Your task to perform on an android device: Is it going to rain today? Image 0: 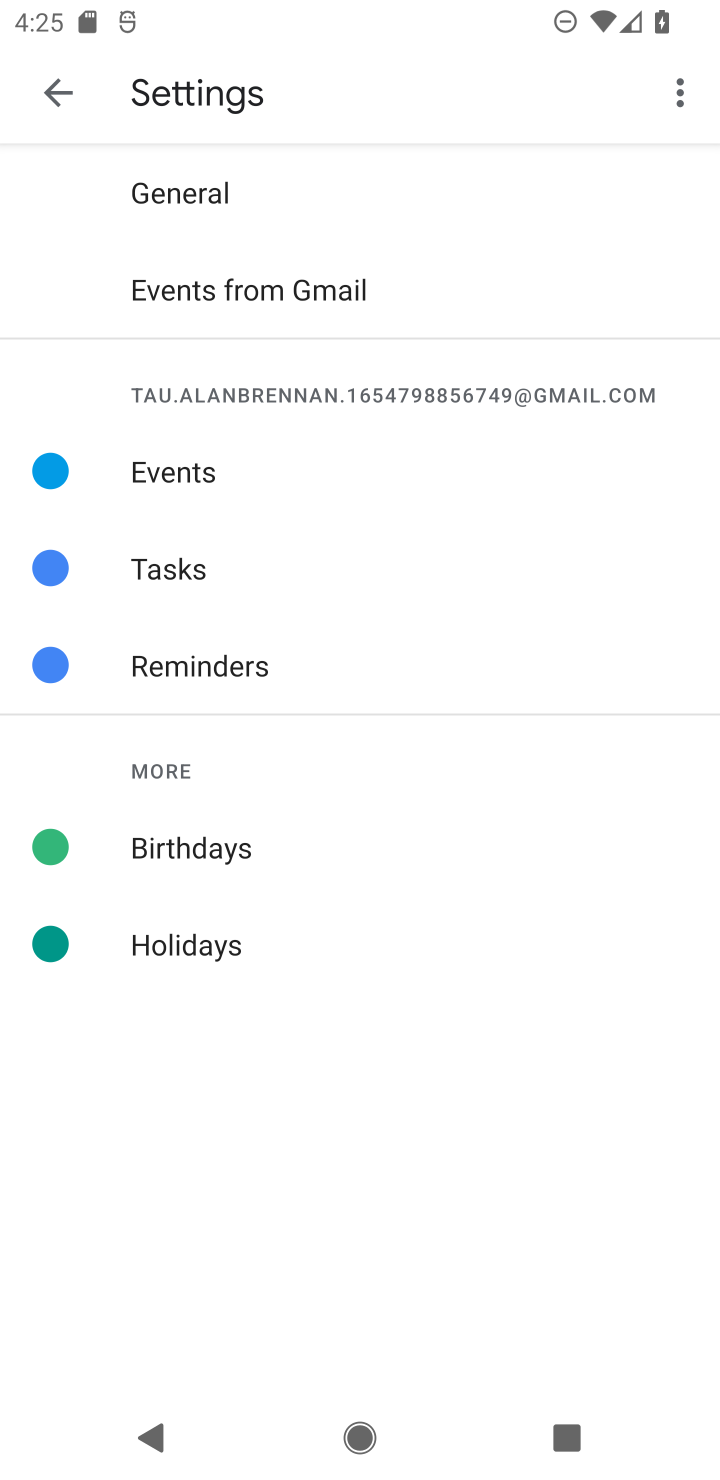
Step 0: press home button
Your task to perform on an android device: Is it going to rain today? Image 1: 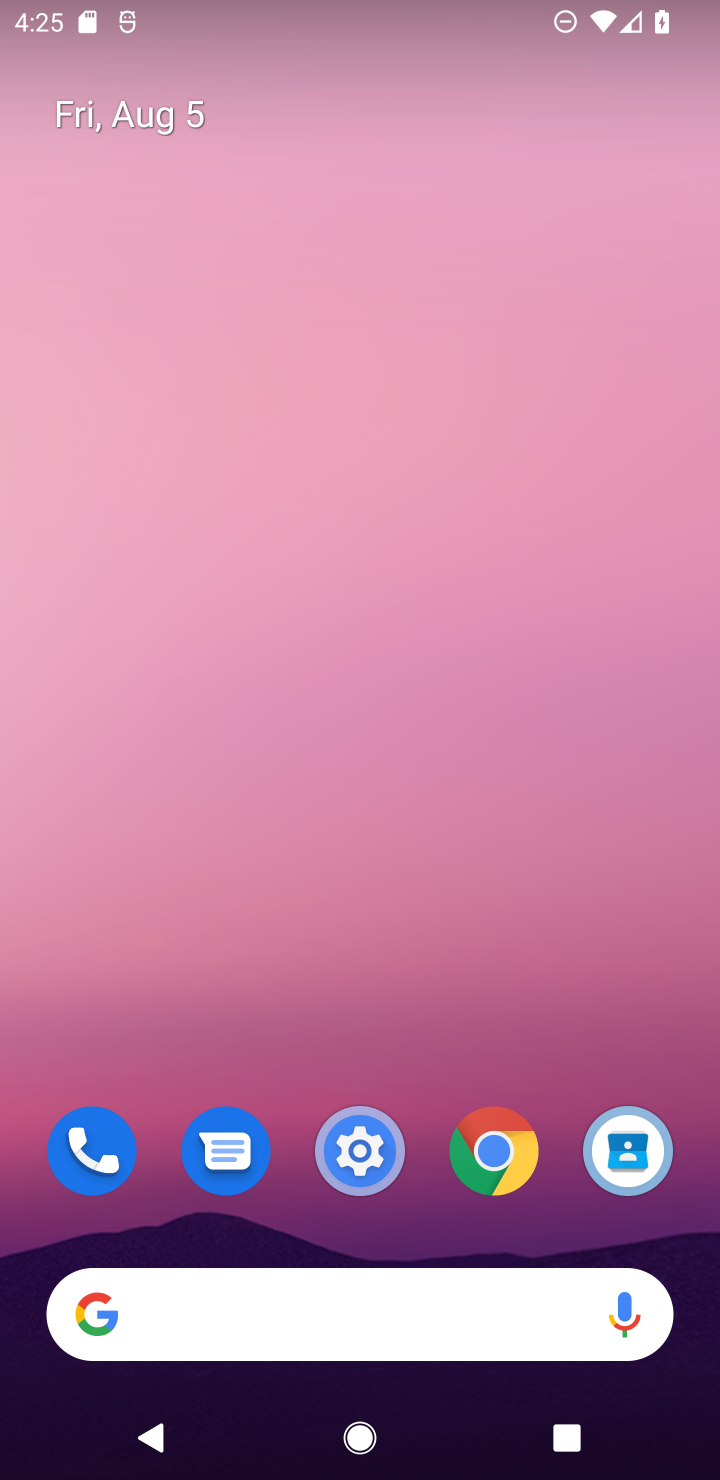
Step 1: click (322, 1299)
Your task to perform on an android device: Is it going to rain today? Image 2: 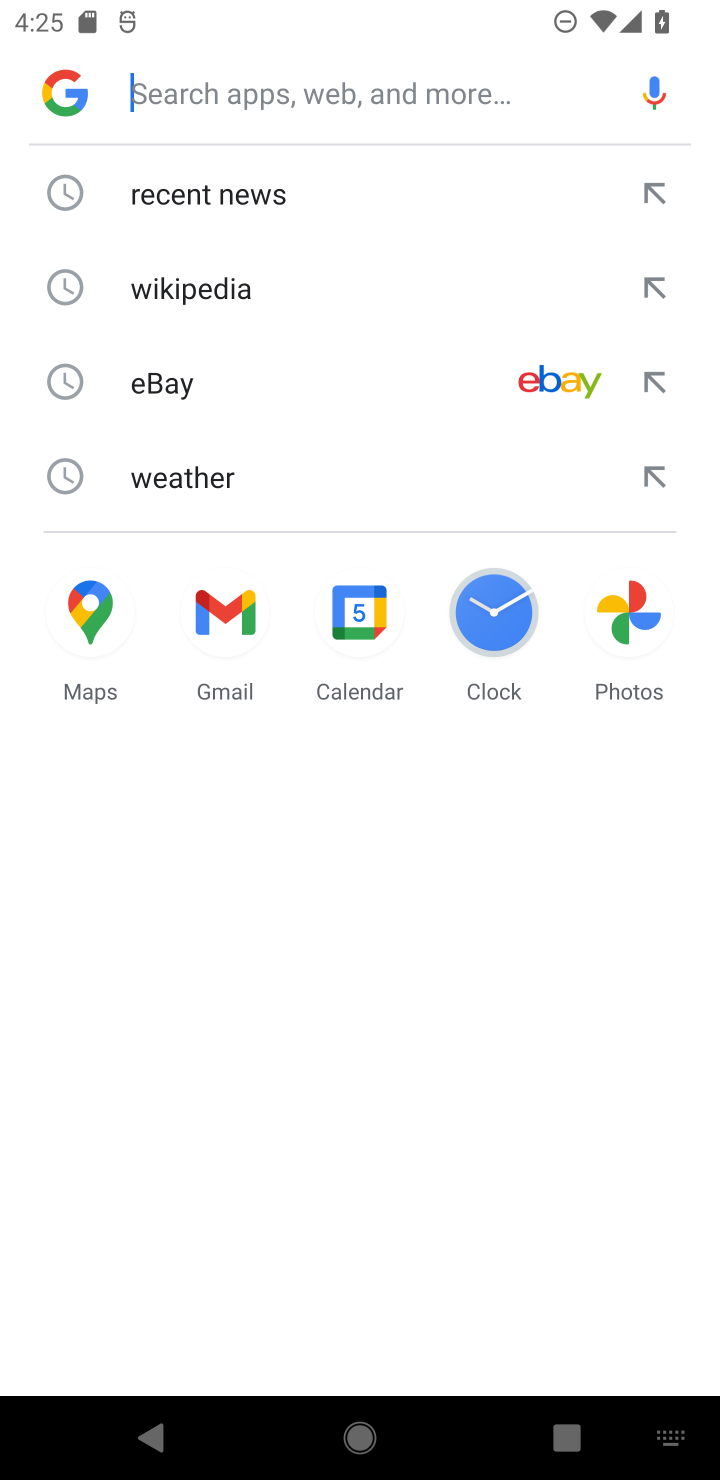
Step 2: type "is it going to rain today"
Your task to perform on an android device: Is it going to rain today? Image 3: 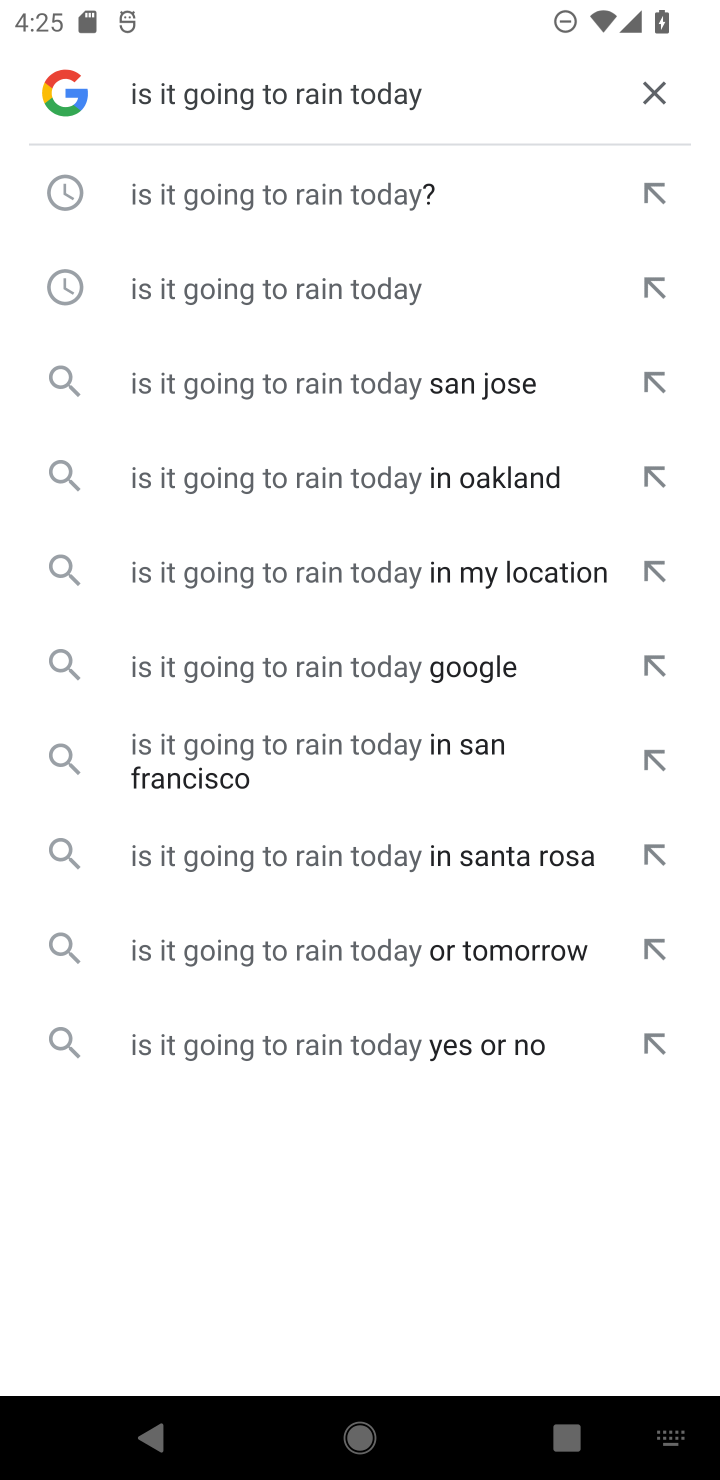
Step 3: click (183, 199)
Your task to perform on an android device: Is it going to rain today? Image 4: 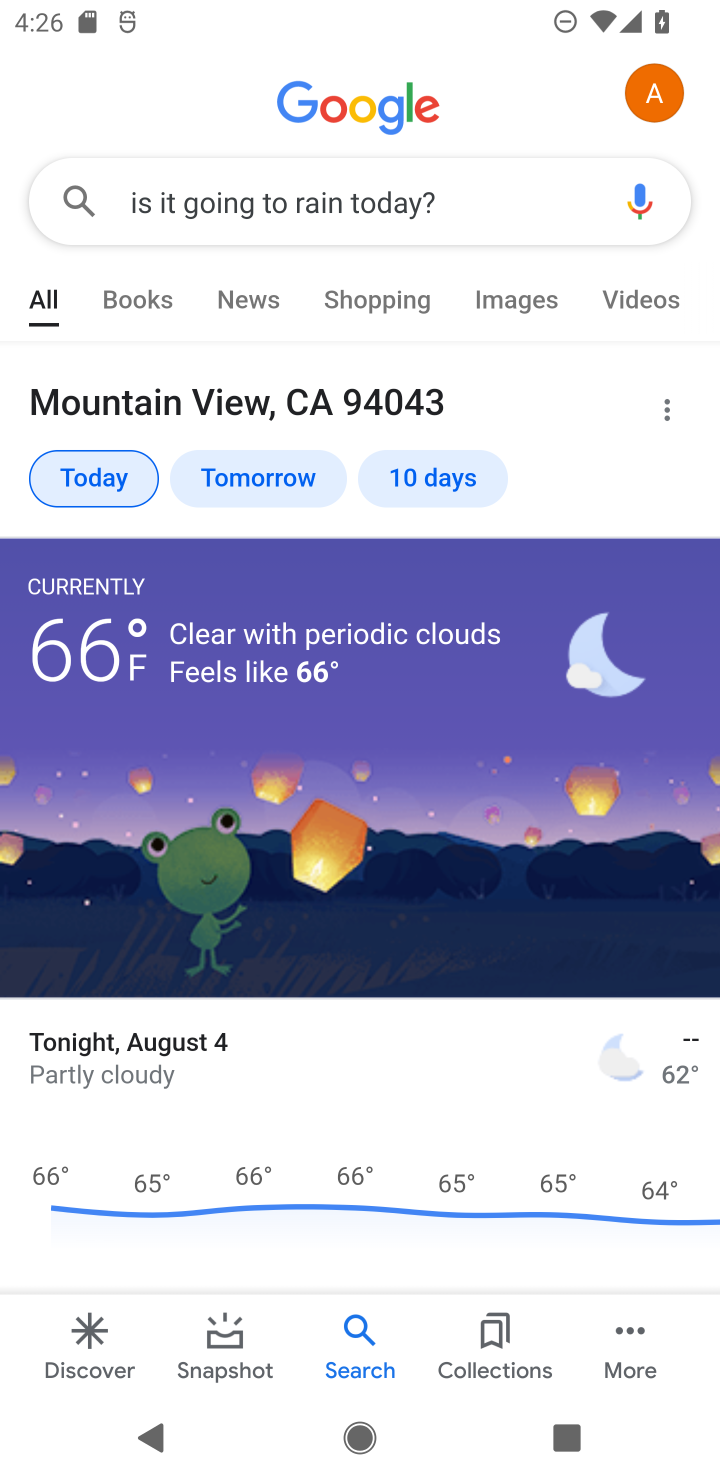
Step 4: task complete